Your task to perform on an android device: toggle javascript in the chrome app Image 0: 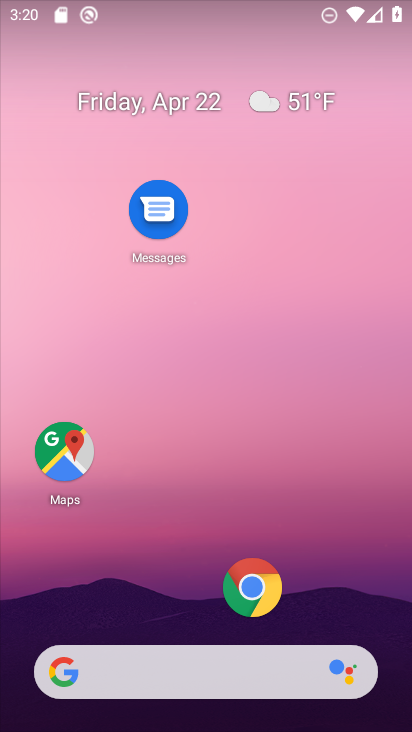
Step 0: click (235, 594)
Your task to perform on an android device: toggle javascript in the chrome app Image 1: 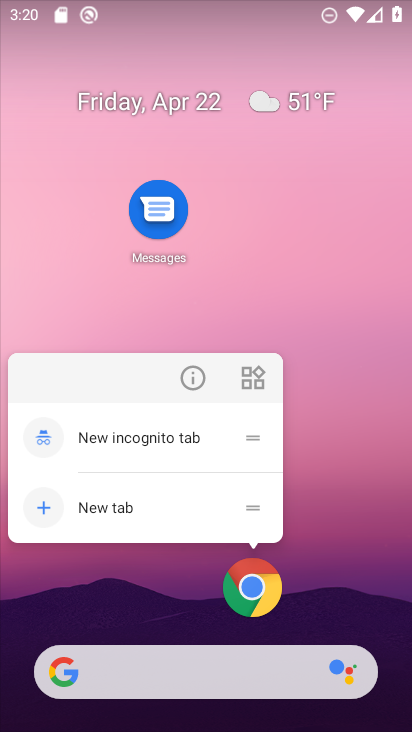
Step 1: click (242, 588)
Your task to perform on an android device: toggle javascript in the chrome app Image 2: 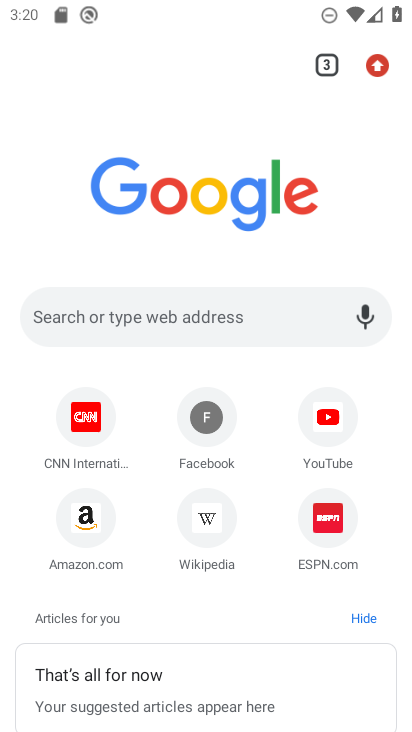
Step 2: drag from (383, 65) to (195, 603)
Your task to perform on an android device: toggle javascript in the chrome app Image 3: 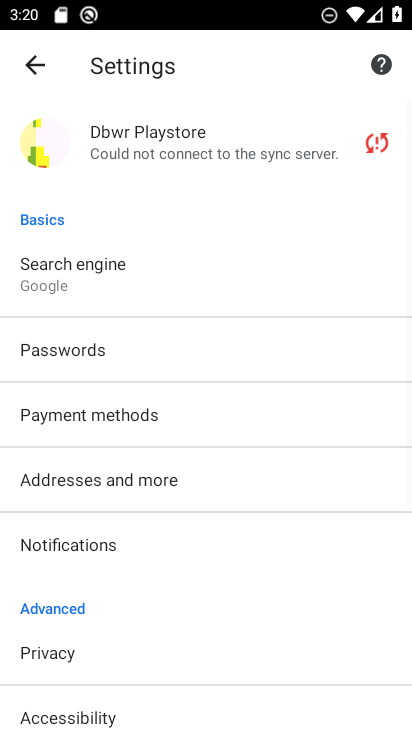
Step 3: drag from (248, 598) to (283, 265)
Your task to perform on an android device: toggle javascript in the chrome app Image 4: 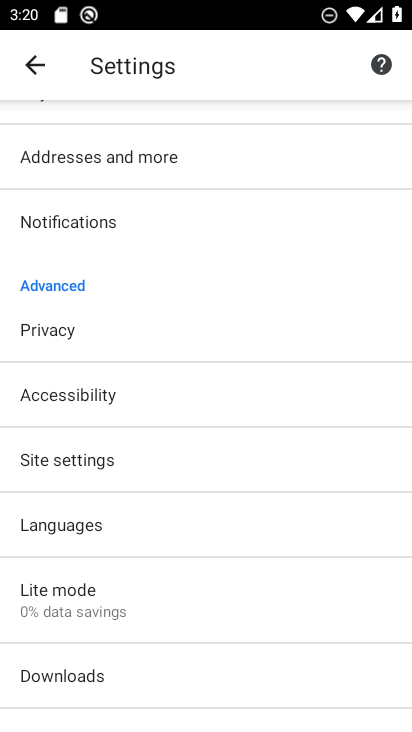
Step 4: click (99, 461)
Your task to perform on an android device: toggle javascript in the chrome app Image 5: 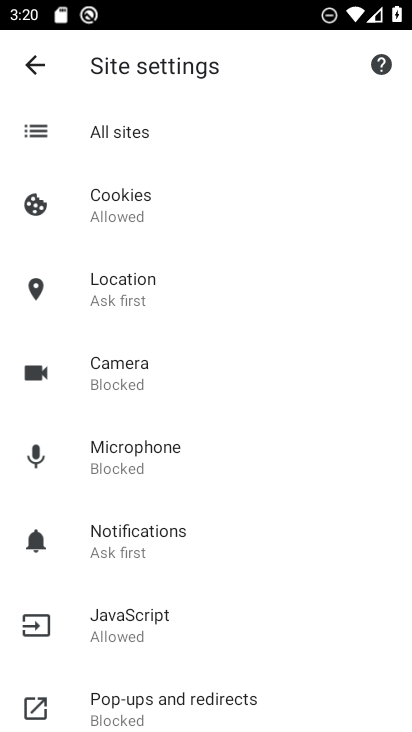
Step 5: click (193, 613)
Your task to perform on an android device: toggle javascript in the chrome app Image 6: 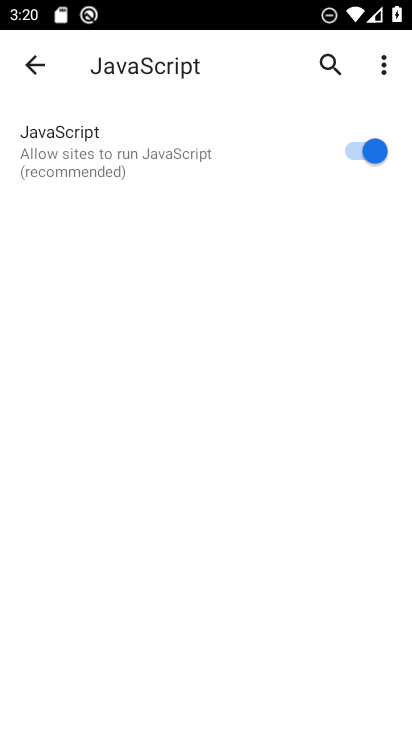
Step 6: click (348, 148)
Your task to perform on an android device: toggle javascript in the chrome app Image 7: 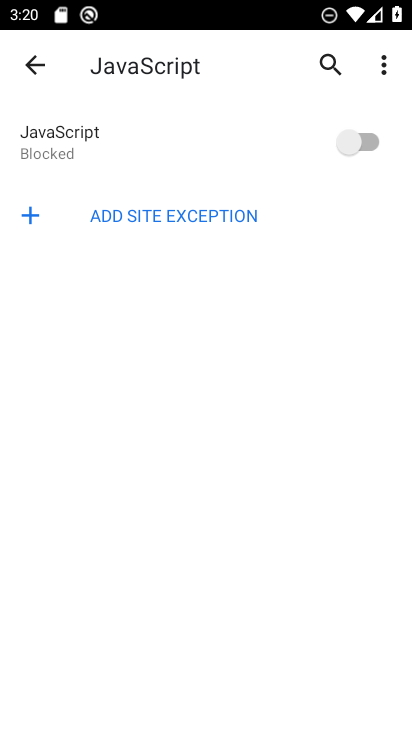
Step 7: task complete